Your task to perform on an android device: turn on showing notifications on the lock screen Image 0: 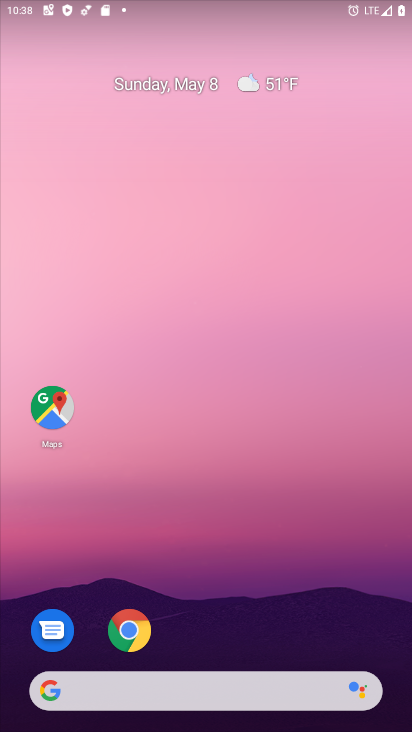
Step 0: drag from (393, 663) to (289, 43)
Your task to perform on an android device: turn on showing notifications on the lock screen Image 1: 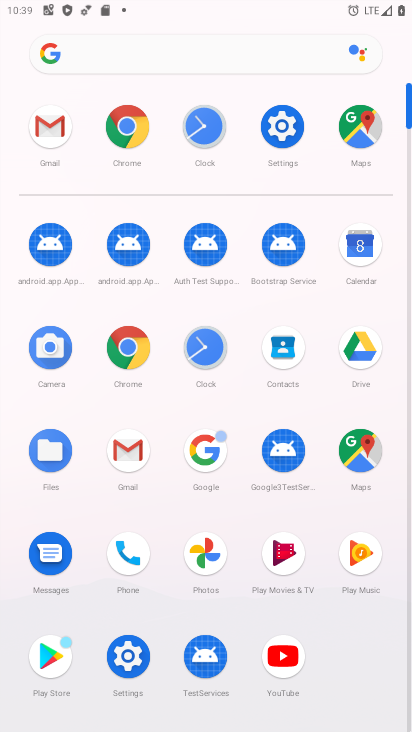
Step 1: click (116, 662)
Your task to perform on an android device: turn on showing notifications on the lock screen Image 2: 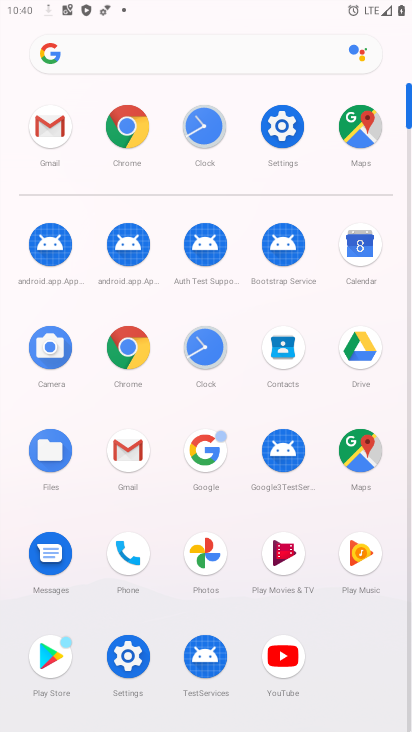
Step 2: click (127, 660)
Your task to perform on an android device: turn on showing notifications on the lock screen Image 3: 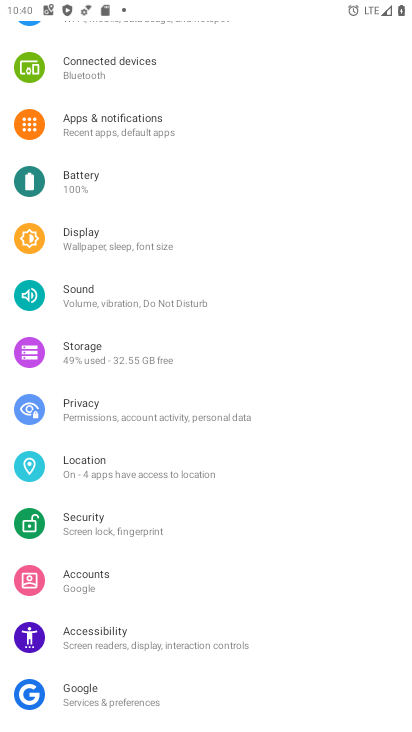
Step 3: click (125, 128)
Your task to perform on an android device: turn on showing notifications on the lock screen Image 4: 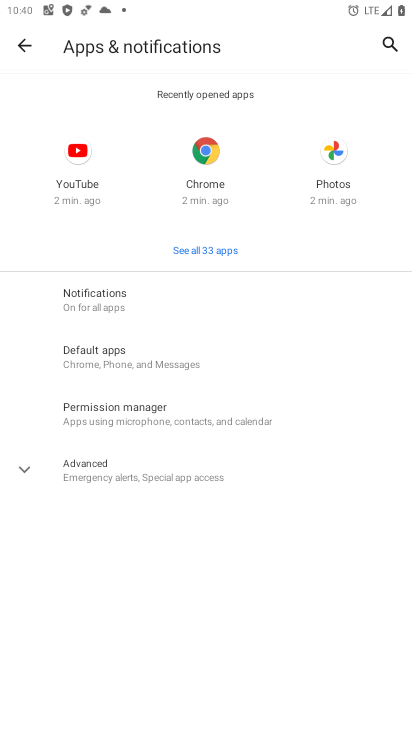
Step 4: click (102, 313)
Your task to perform on an android device: turn on showing notifications on the lock screen Image 5: 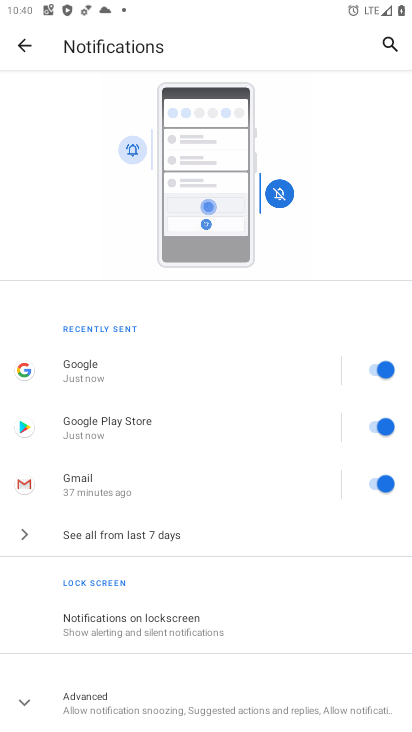
Step 5: click (190, 627)
Your task to perform on an android device: turn on showing notifications on the lock screen Image 6: 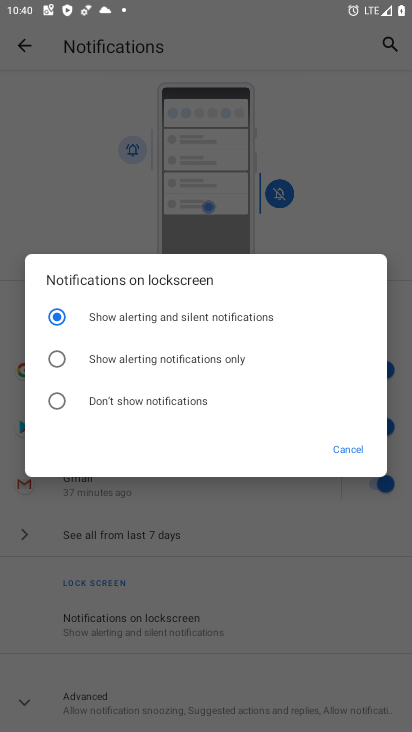
Step 6: task complete